Your task to perform on an android device: Show me the alarms in the clock app Image 0: 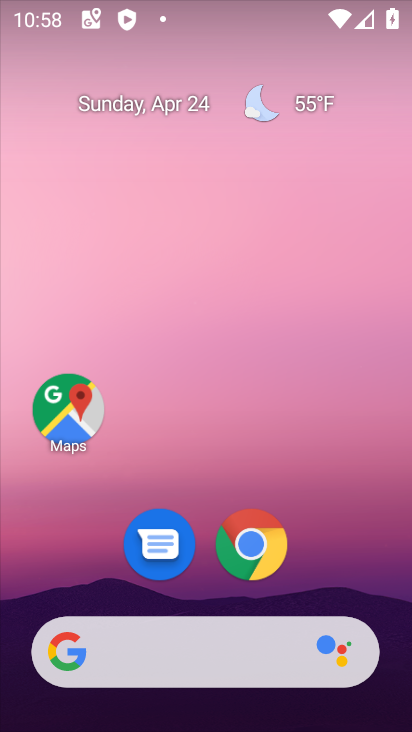
Step 0: drag from (338, 565) to (319, 76)
Your task to perform on an android device: Show me the alarms in the clock app Image 1: 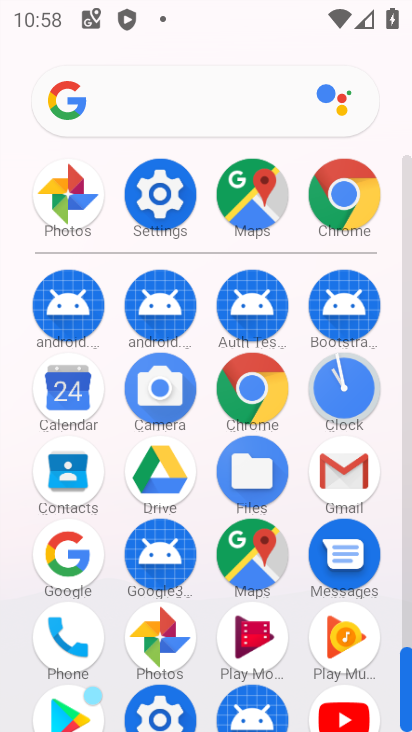
Step 1: click (352, 379)
Your task to perform on an android device: Show me the alarms in the clock app Image 2: 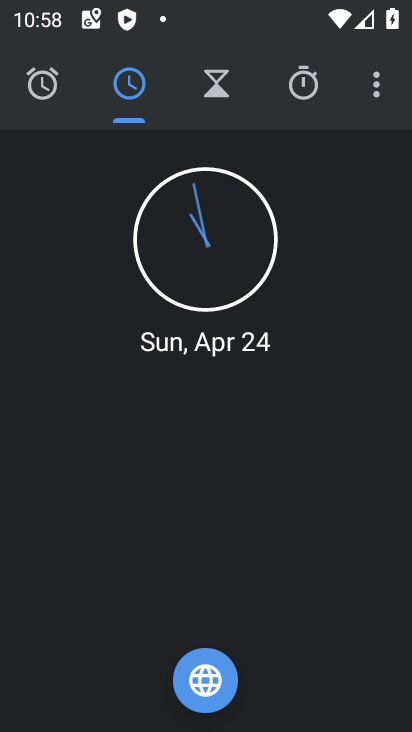
Step 2: click (52, 88)
Your task to perform on an android device: Show me the alarms in the clock app Image 3: 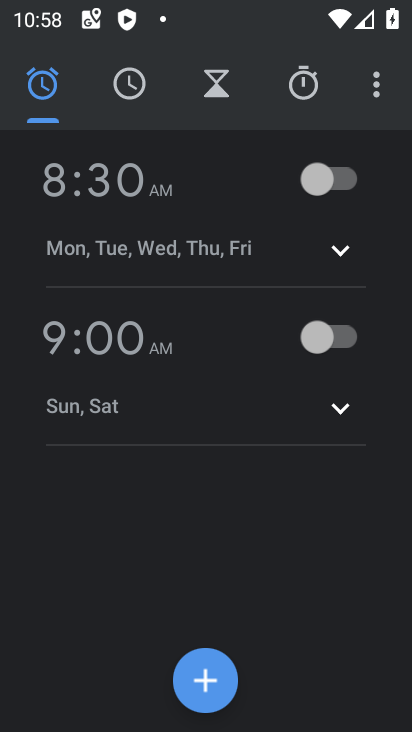
Step 3: task complete